Your task to perform on an android device: turn on the 12-hour format for clock Image 0: 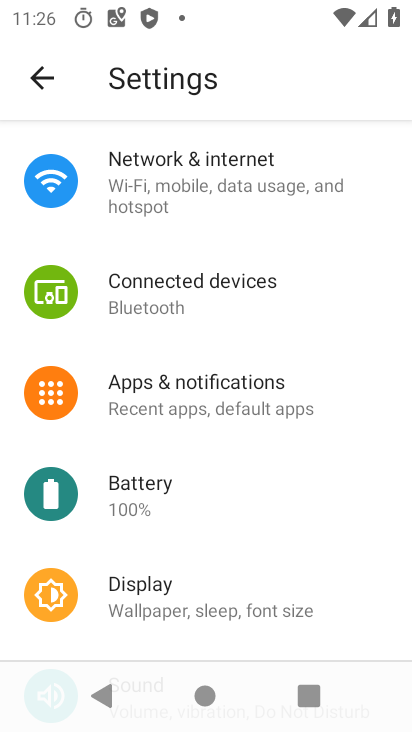
Step 0: task complete